Your task to perform on an android device: open app "Fetch Rewards" Image 0: 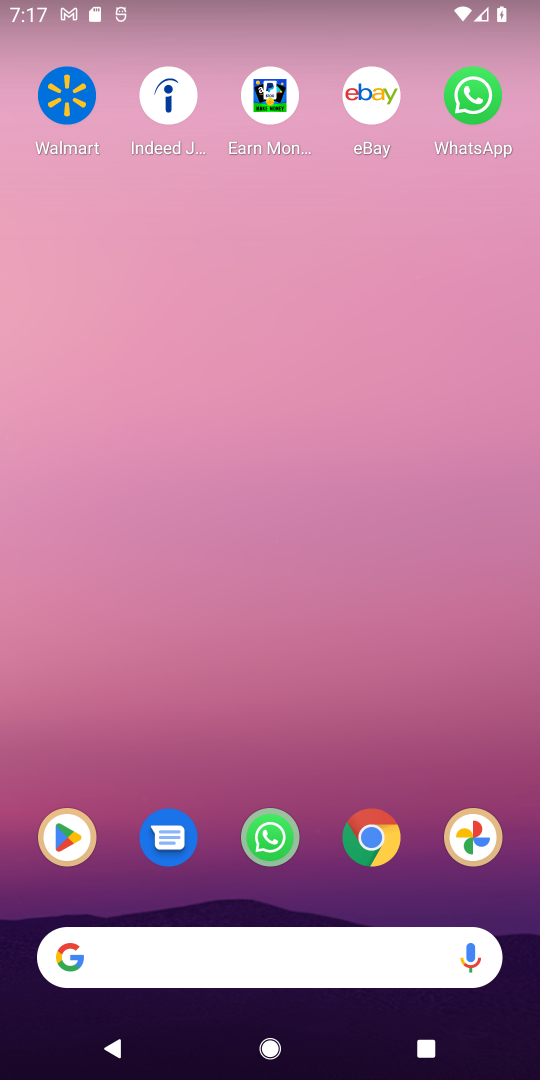
Step 0: drag from (230, 887) to (326, 379)
Your task to perform on an android device: open app "Fetch Rewards" Image 1: 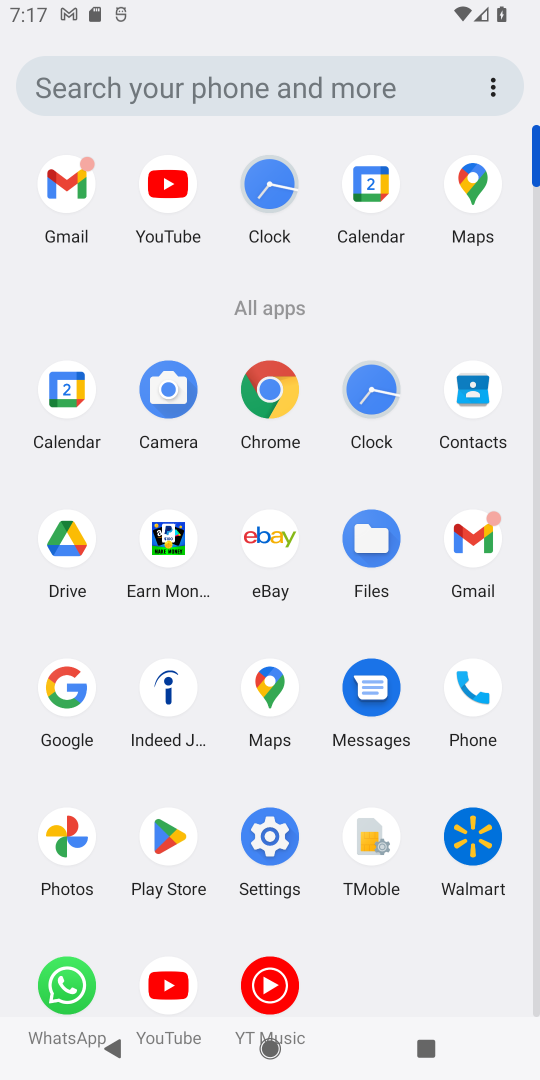
Step 1: click (169, 830)
Your task to perform on an android device: open app "Fetch Rewards" Image 2: 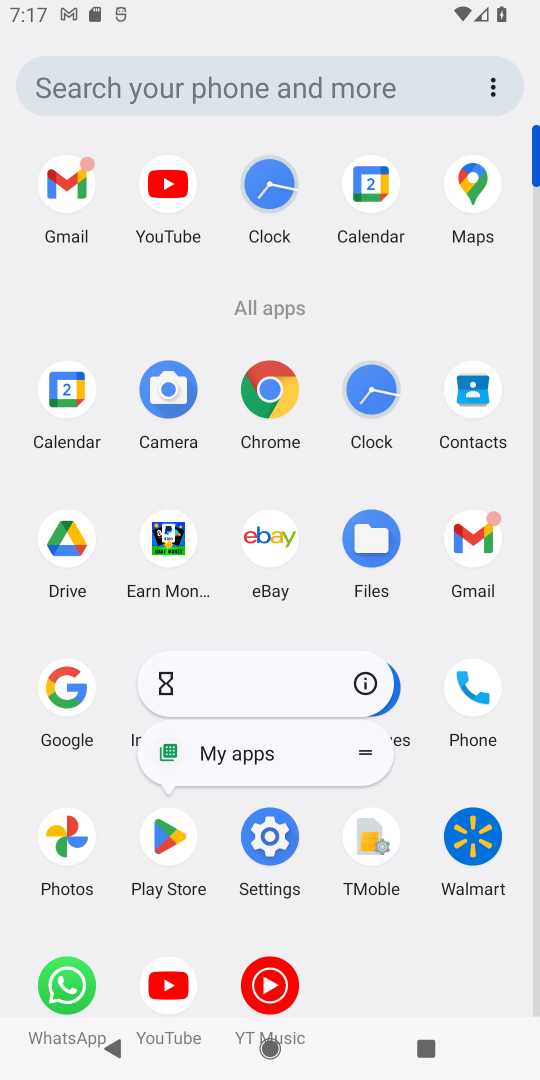
Step 2: click (362, 681)
Your task to perform on an android device: open app "Fetch Rewards" Image 3: 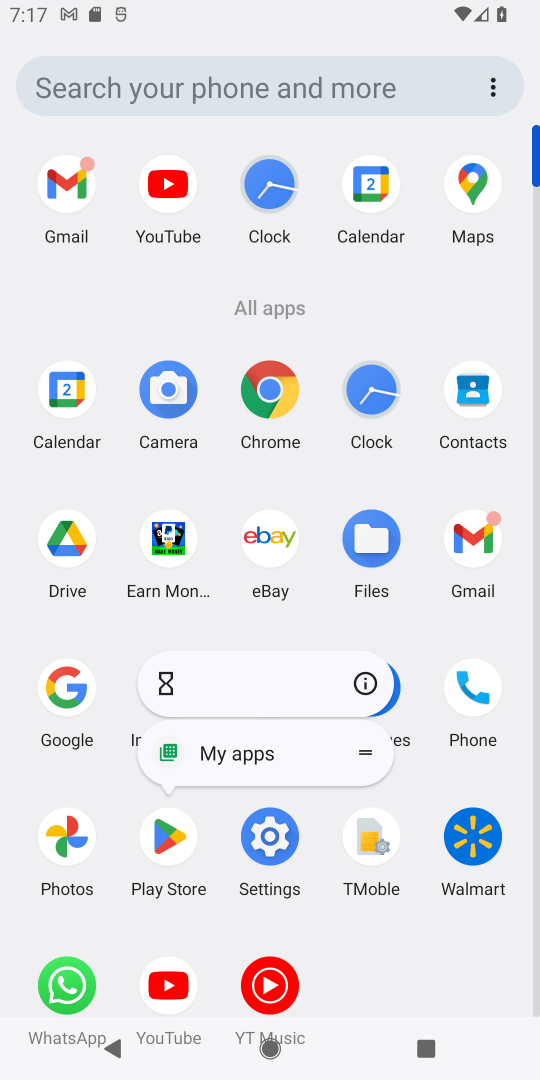
Step 3: click (366, 670)
Your task to perform on an android device: open app "Fetch Rewards" Image 4: 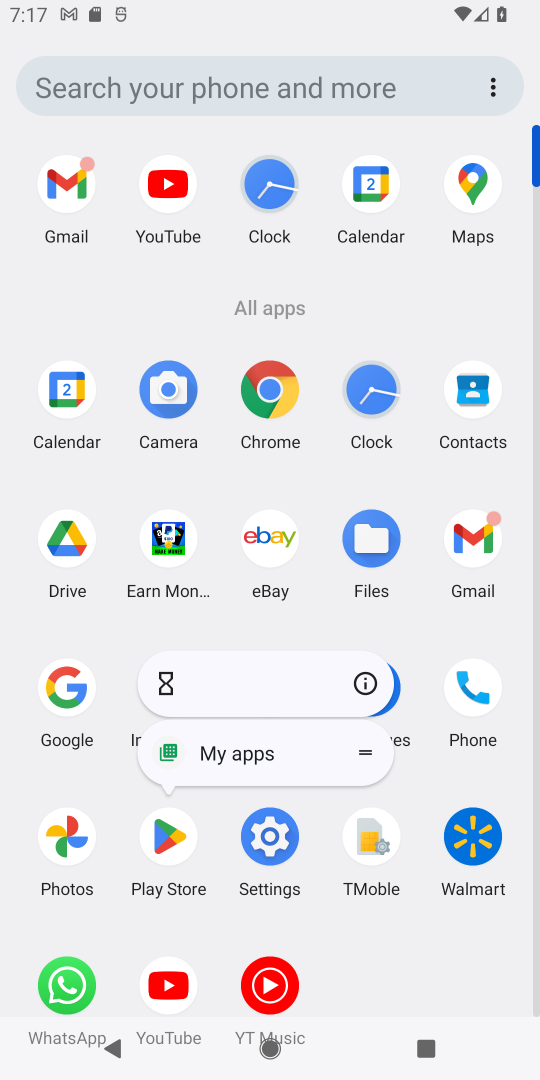
Step 4: click (358, 673)
Your task to perform on an android device: open app "Fetch Rewards" Image 5: 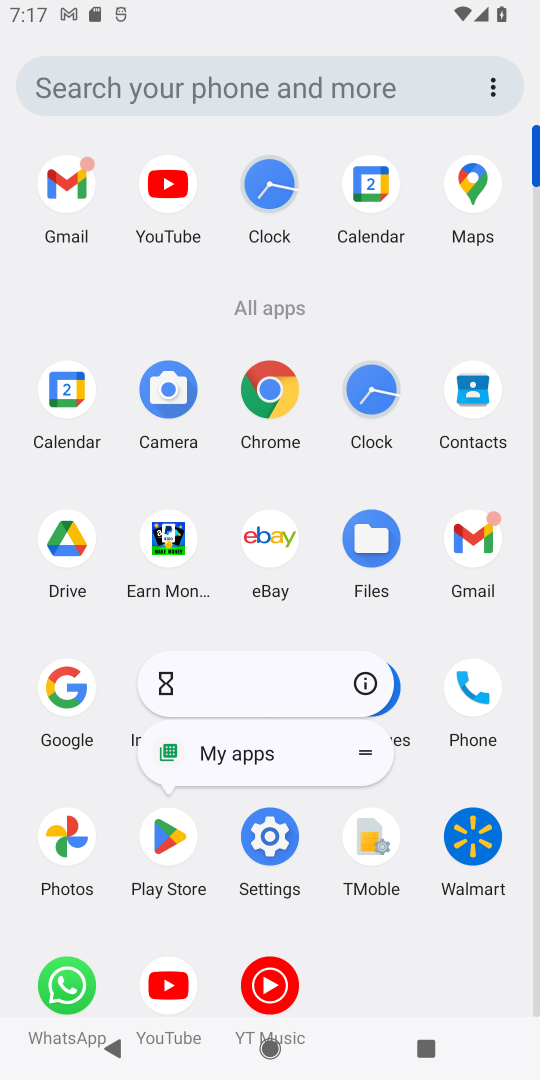
Step 5: click (358, 674)
Your task to perform on an android device: open app "Fetch Rewards" Image 6: 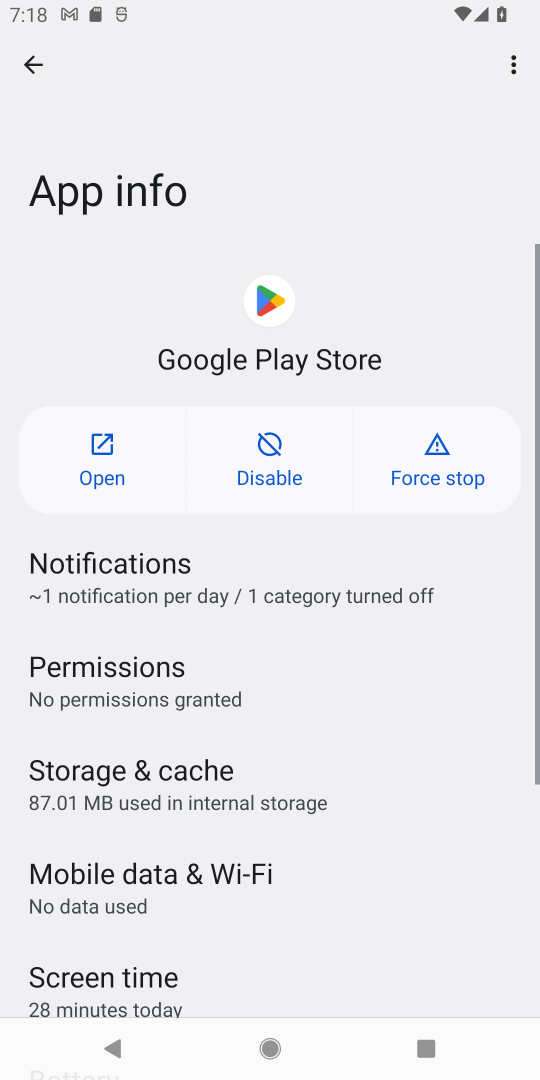
Step 6: click (92, 439)
Your task to perform on an android device: open app "Fetch Rewards" Image 7: 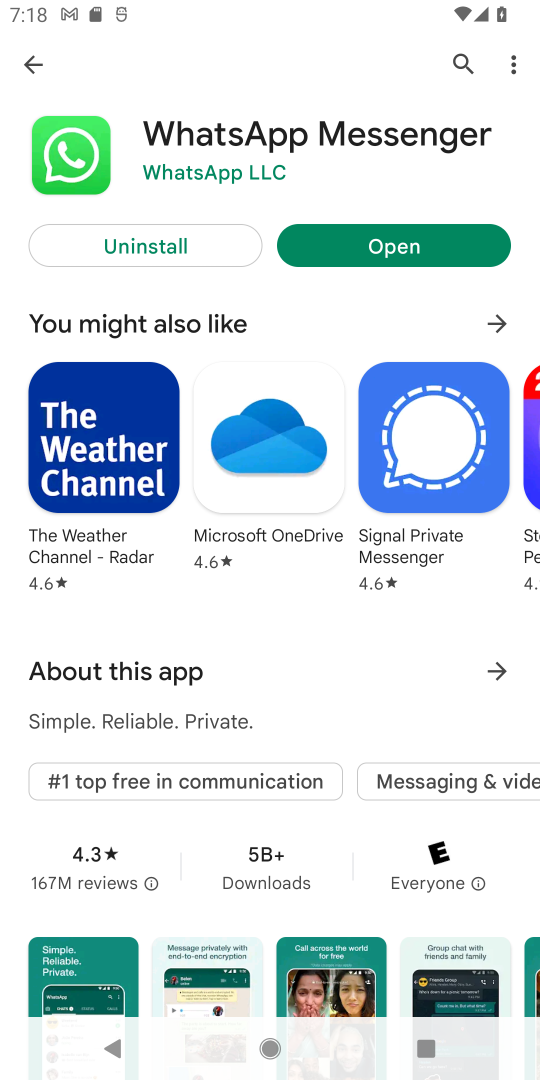
Step 7: click (468, 73)
Your task to perform on an android device: open app "Fetch Rewards" Image 8: 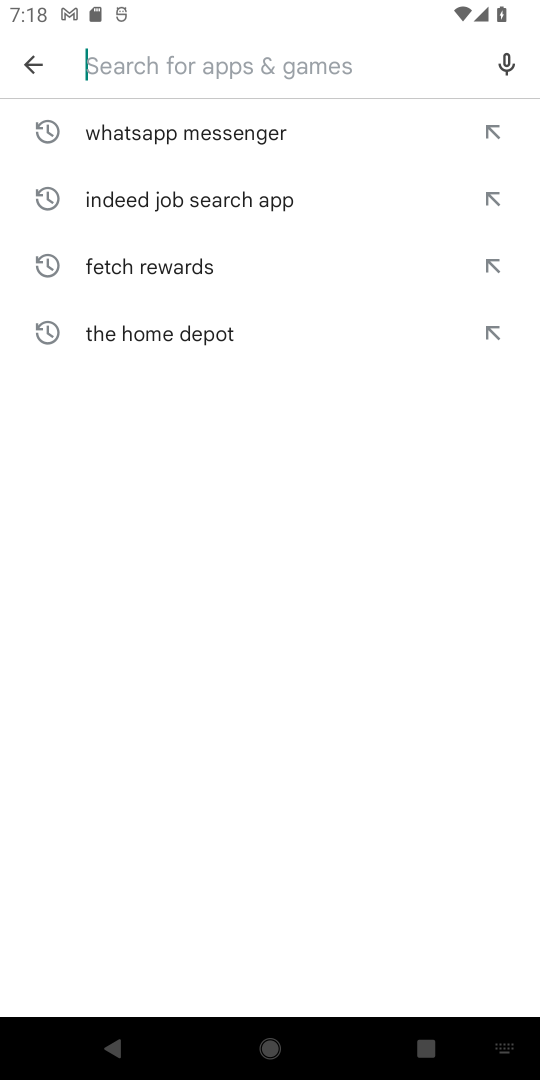
Step 8: type "Fetch Rewards"
Your task to perform on an android device: open app "Fetch Rewards" Image 9: 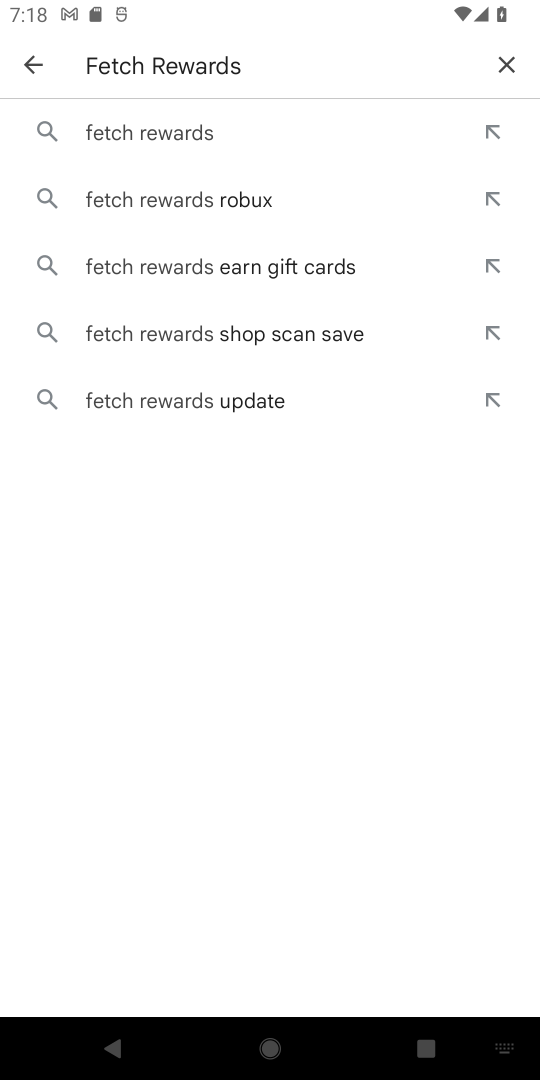
Step 9: click (164, 139)
Your task to perform on an android device: open app "Fetch Rewards" Image 10: 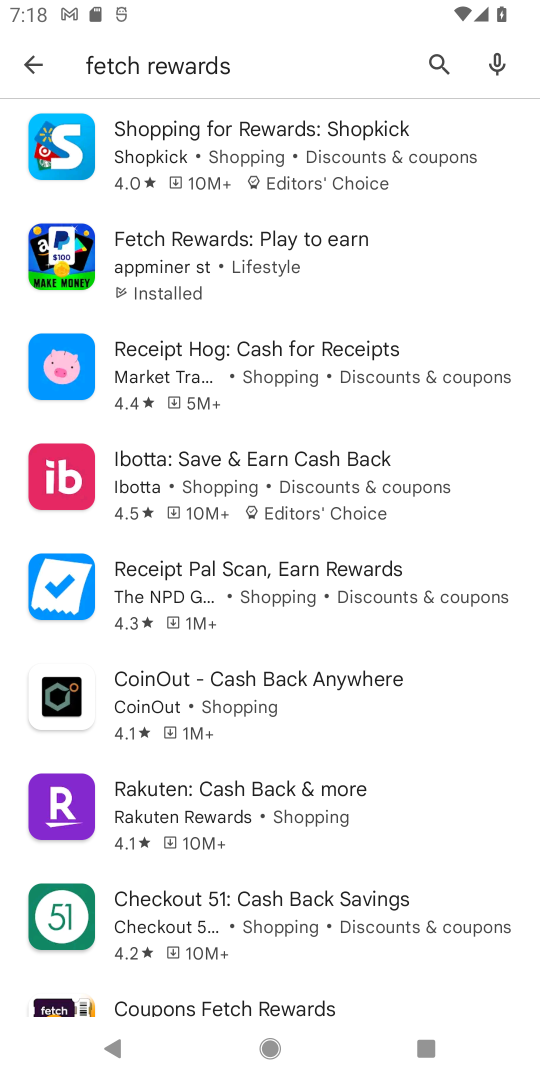
Step 10: click (237, 243)
Your task to perform on an android device: open app "Fetch Rewards" Image 11: 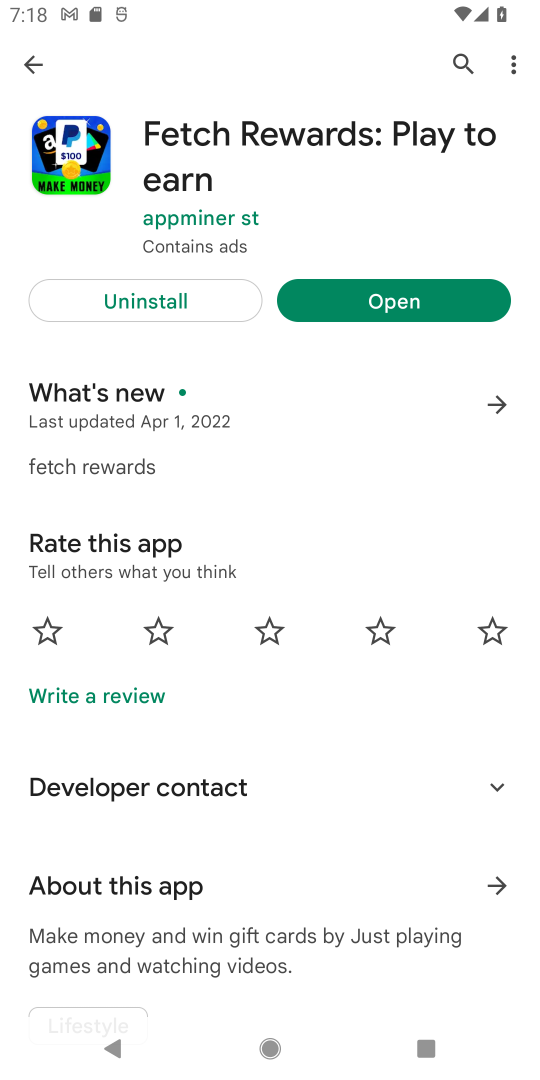
Step 11: drag from (329, 186) to (278, 704)
Your task to perform on an android device: open app "Fetch Rewards" Image 12: 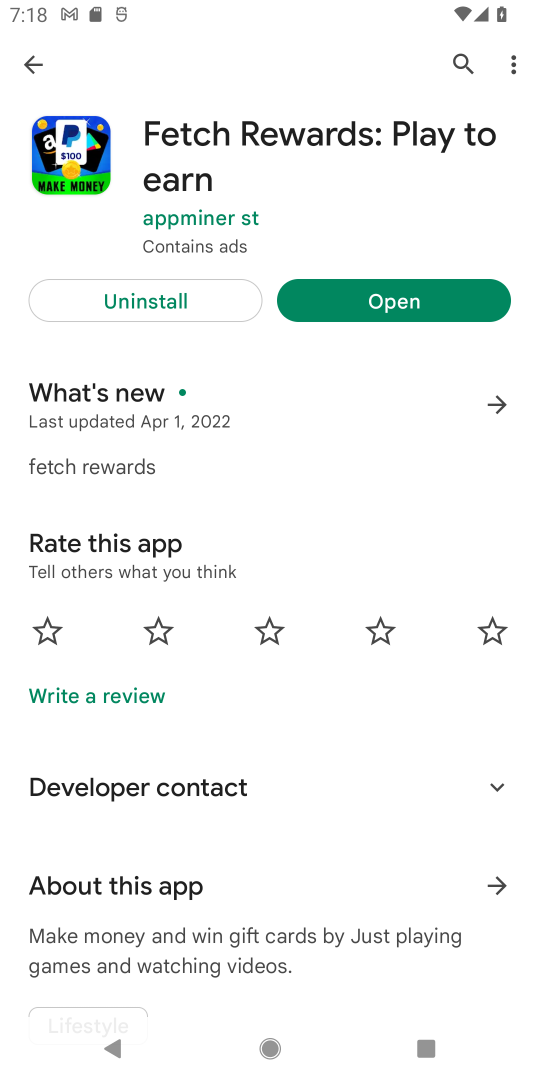
Step 12: click (376, 296)
Your task to perform on an android device: open app "Fetch Rewards" Image 13: 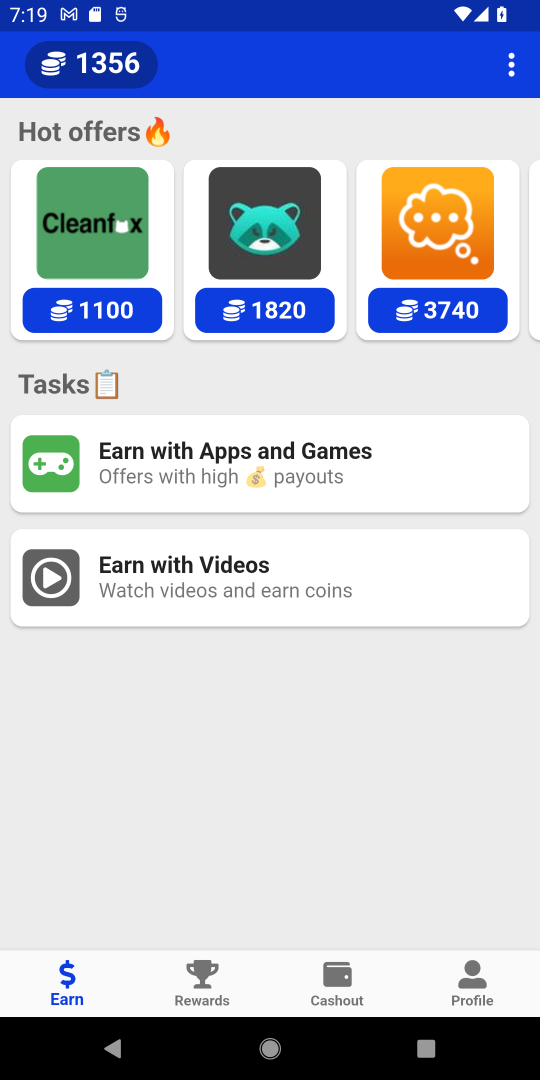
Step 13: task complete